Your task to perform on an android device: clear history in the chrome app Image 0: 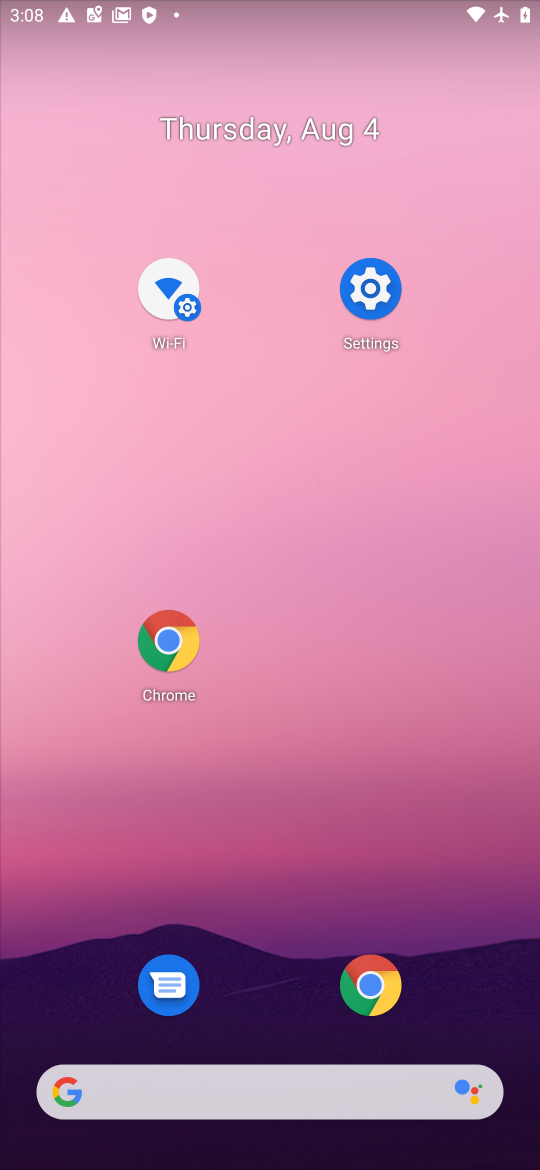
Step 0: drag from (350, 1148) to (228, 276)
Your task to perform on an android device: clear history in the chrome app Image 1: 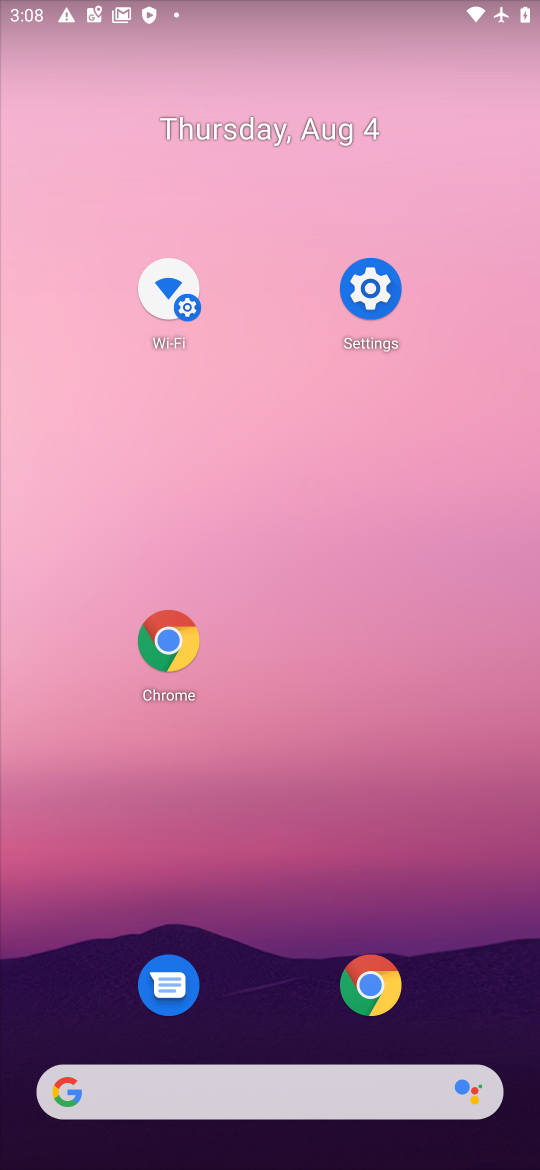
Step 1: click (336, 454)
Your task to perform on an android device: clear history in the chrome app Image 2: 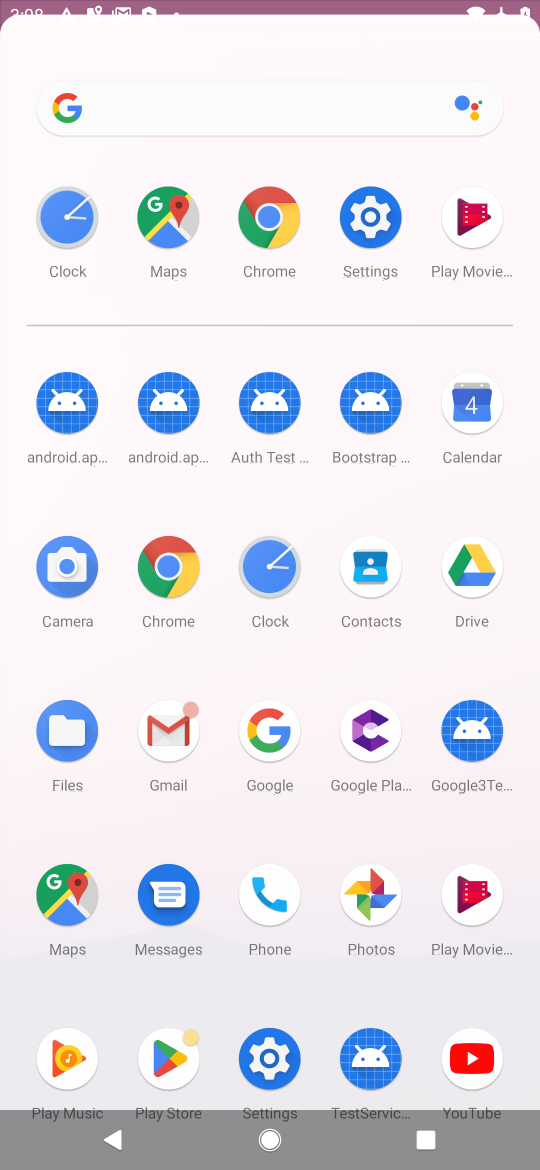
Step 2: drag from (176, 741) to (140, 189)
Your task to perform on an android device: clear history in the chrome app Image 3: 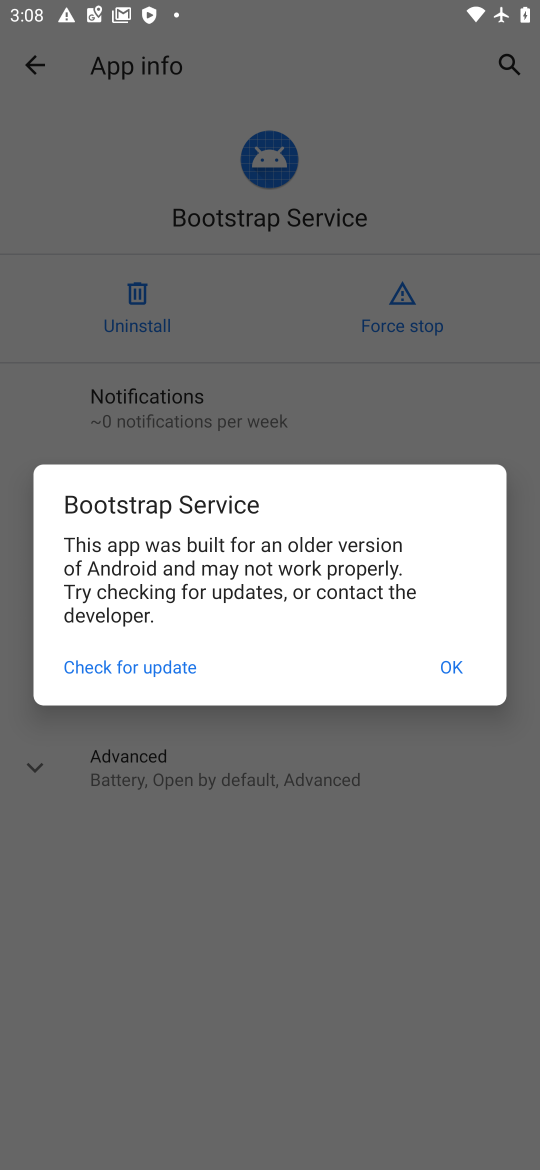
Step 3: click (458, 673)
Your task to perform on an android device: clear history in the chrome app Image 4: 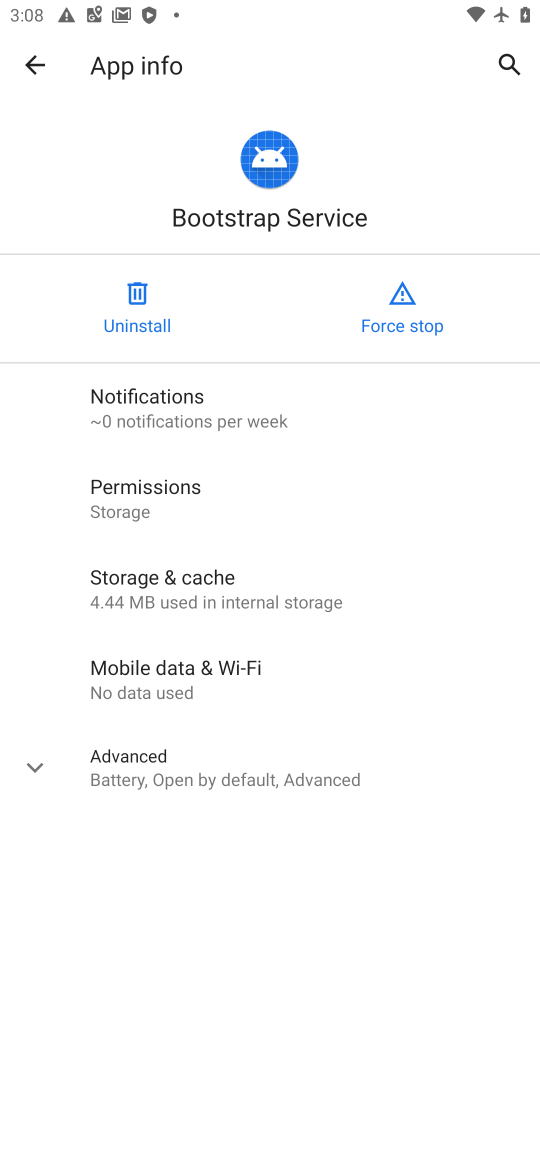
Step 4: press back button
Your task to perform on an android device: clear history in the chrome app Image 5: 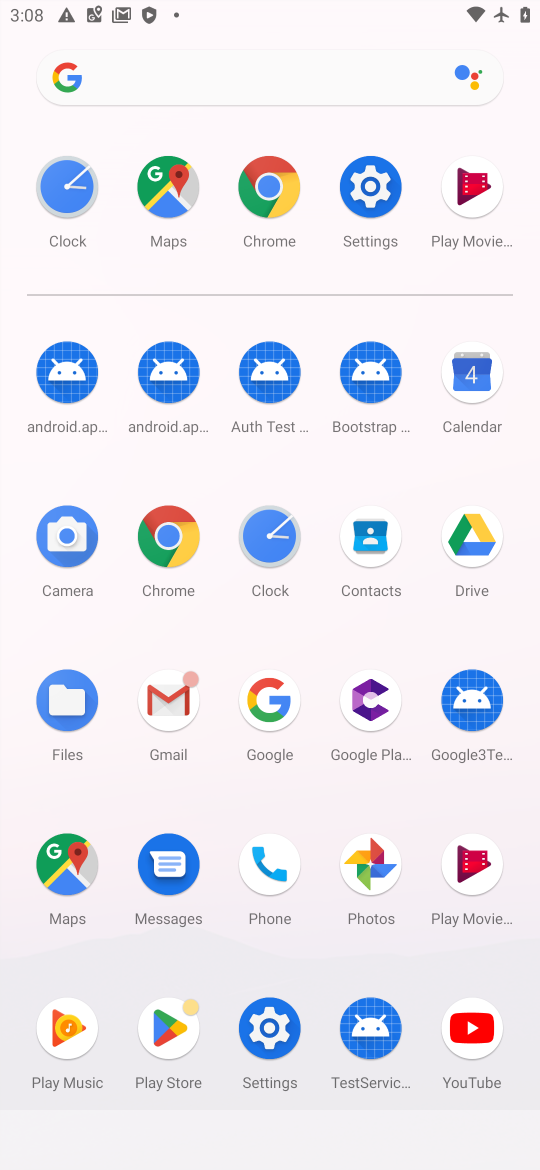
Step 5: click (25, 60)
Your task to perform on an android device: clear history in the chrome app Image 6: 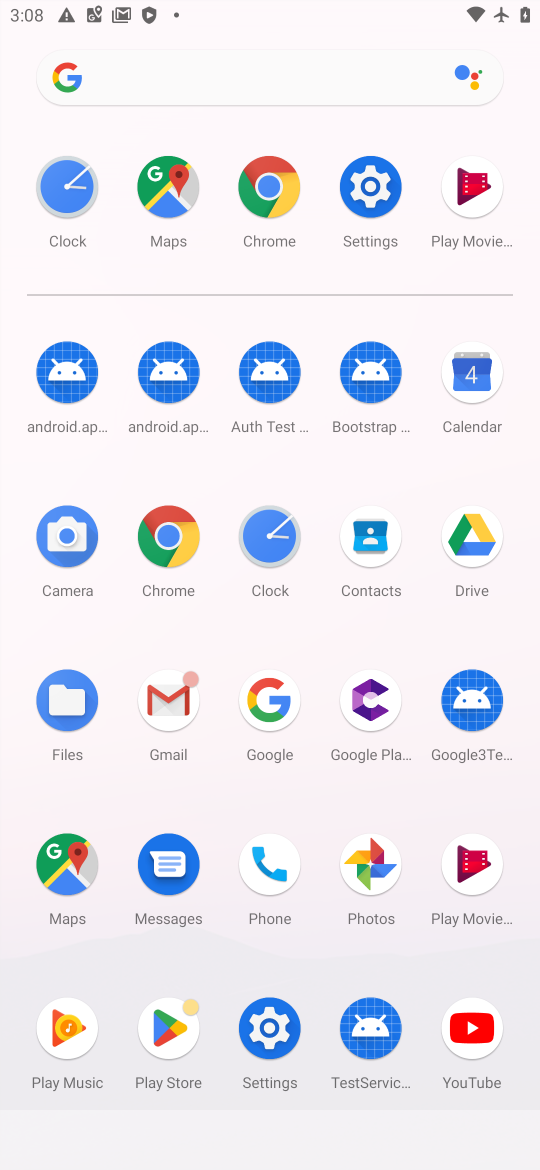
Step 6: click (261, 202)
Your task to perform on an android device: clear history in the chrome app Image 7: 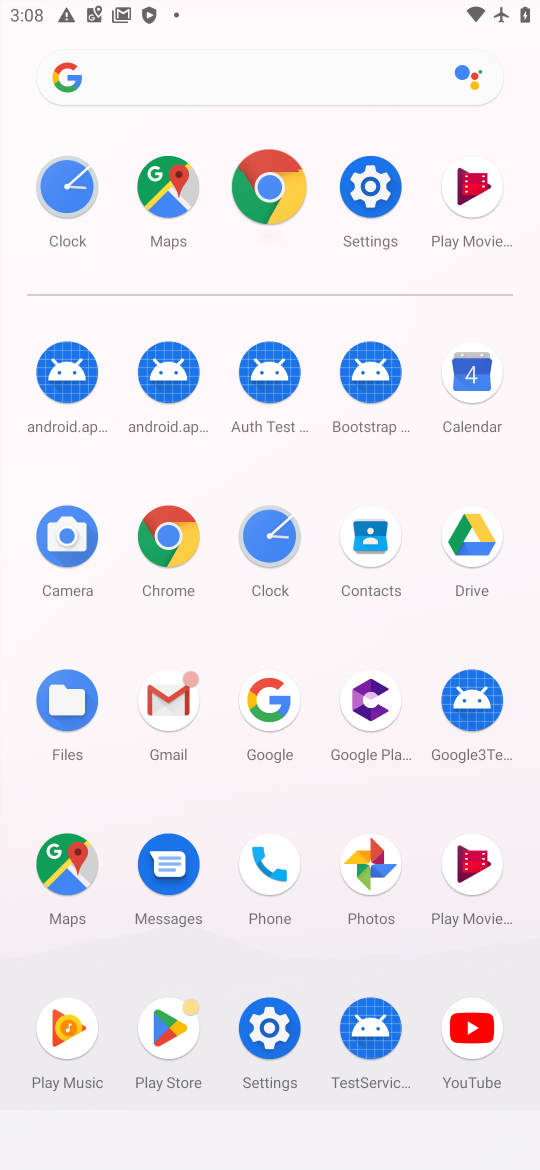
Step 7: click (261, 202)
Your task to perform on an android device: clear history in the chrome app Image 8: 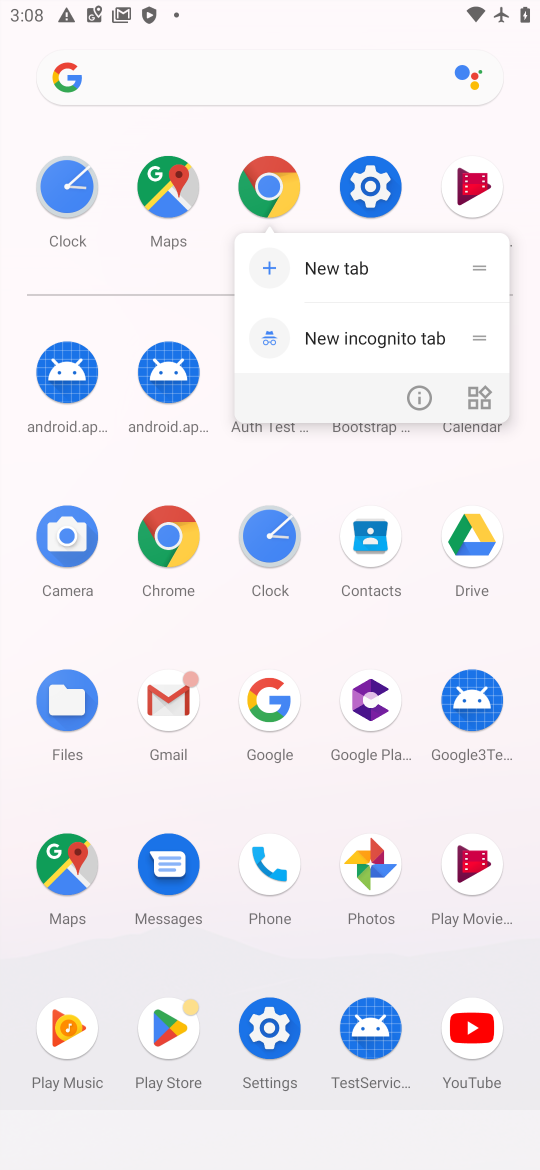
Step 8: click (252, 183)
Your task to perform on an android device: clear history in the chrome app Image 9: 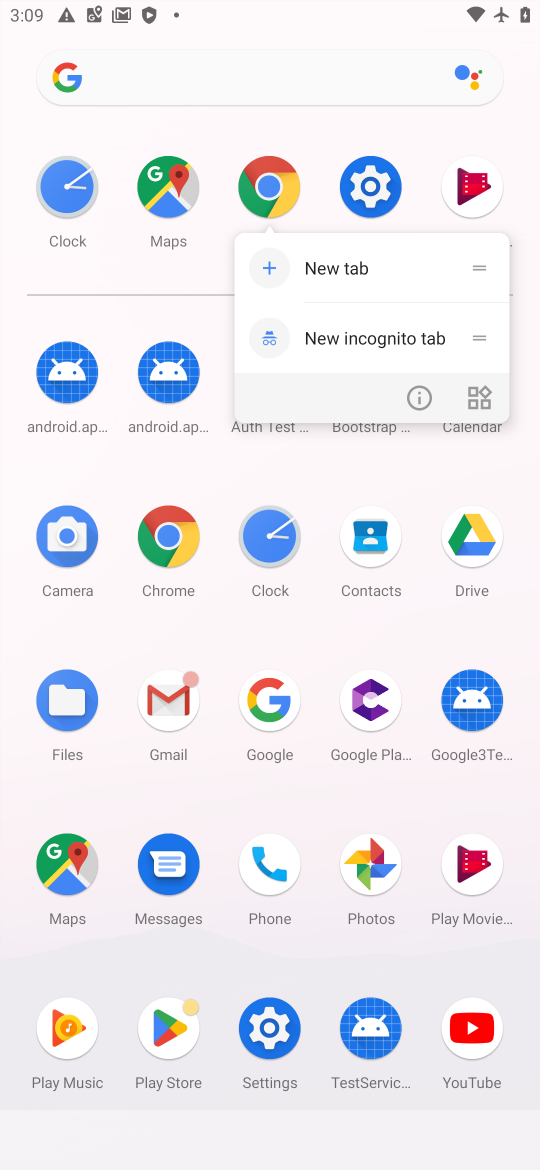
Step 9: click (313, 262)
Your task to perform on an android device: clear history in the chrome app Image 10: 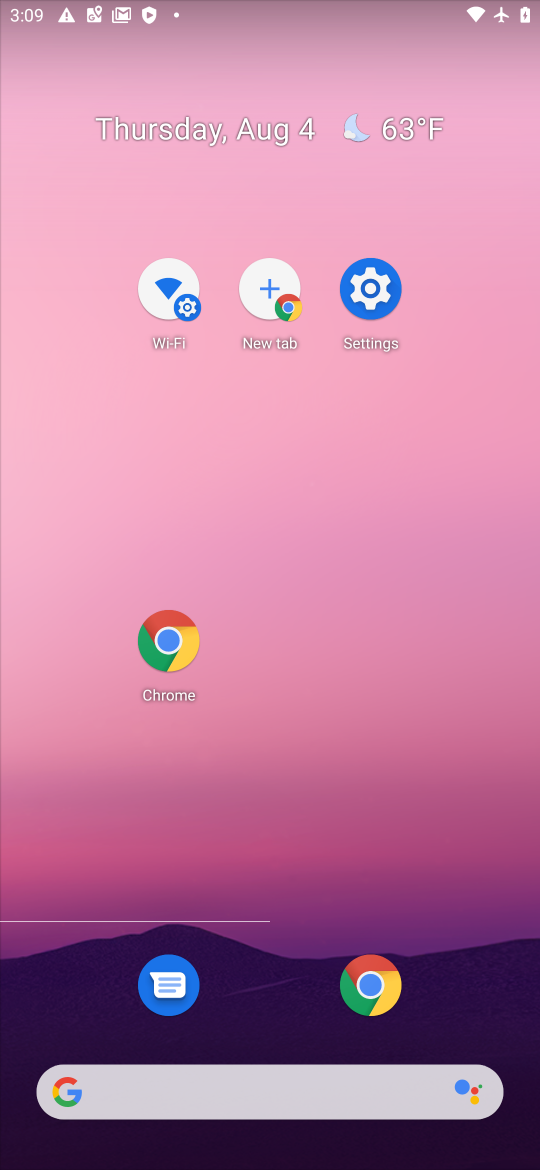
Step 10: drag from (301, 1061) to (145, 351)
Your task to perform on an android device: clear history in the chrome app Image 11: 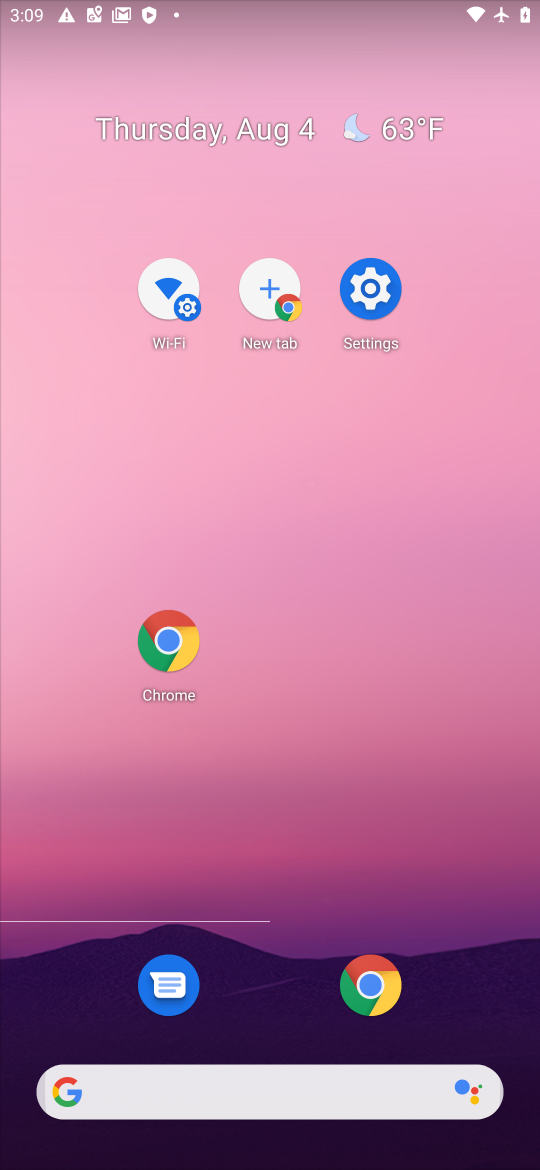
Step 11: drag from (286, 400) to (295, 151)
Your task to perform on an android device: clear history in the chrome app Image 12: 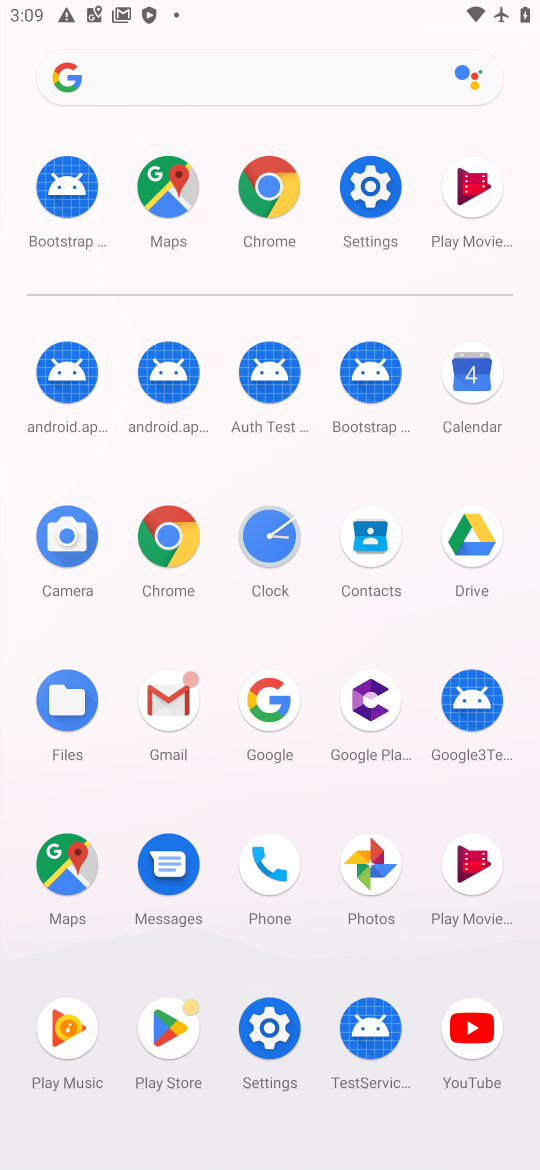
Step 12: click (263, 191)
Your task to perform on an android device: clear history in the chrome app Image 13: 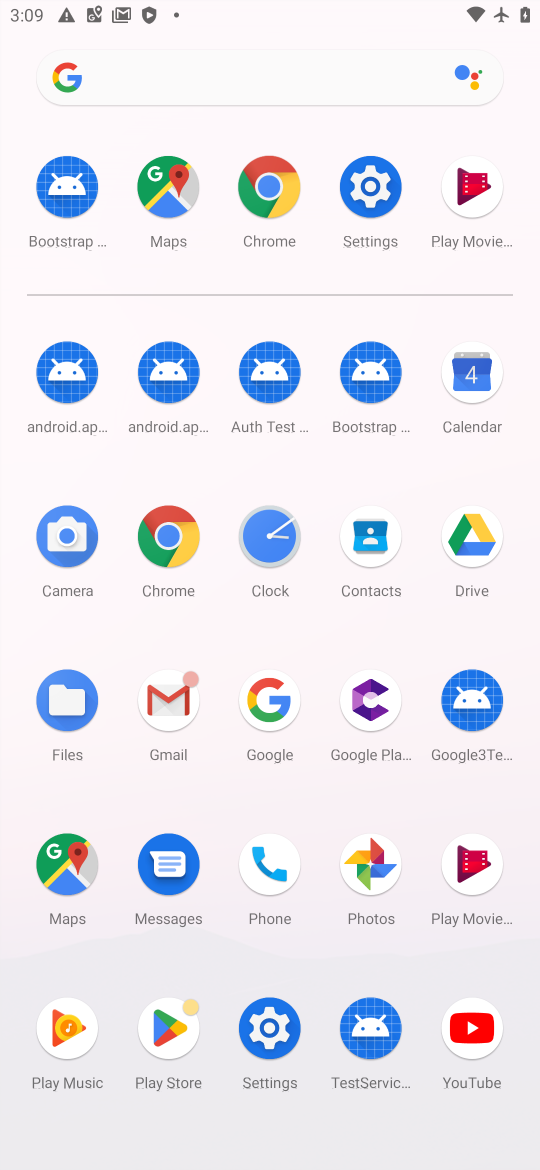
Step 13: click (263, 188)
Your task to perform on an android device: clear history in the chrome app Image 14: 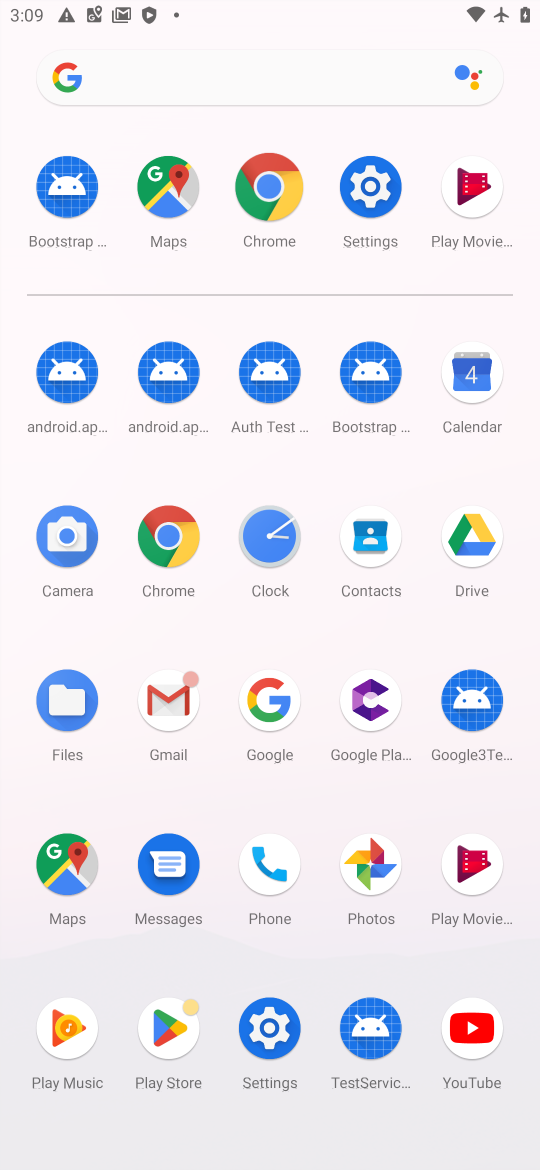
Step 14: click (263, 188)
Your task to perform on an android device: clear history in the chrome app Image 15: 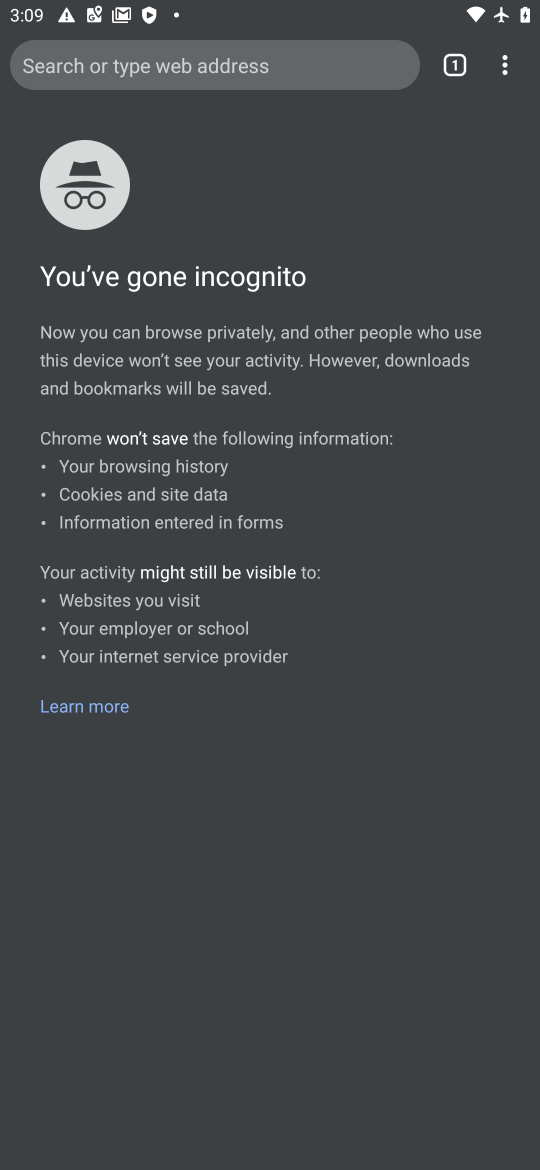
Step 15: drag from (502, 78) to (255, 294)
Your task to perform on an android device: clear history in the chrome app Image 16: 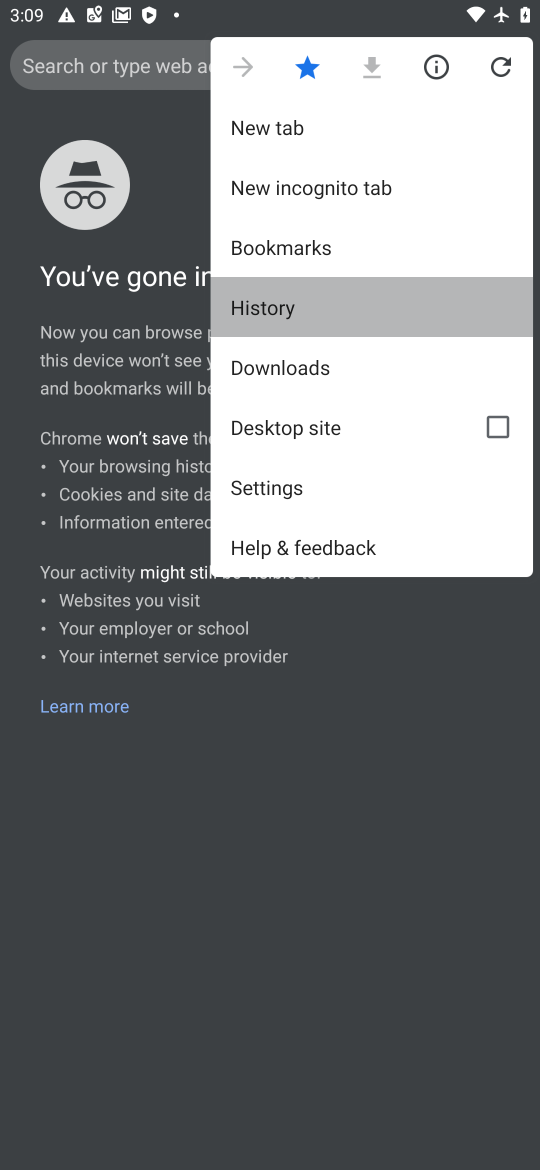
Step 16: click (255, 294)
Your task to perform on an android device: clear history in the chrome app Image 17: 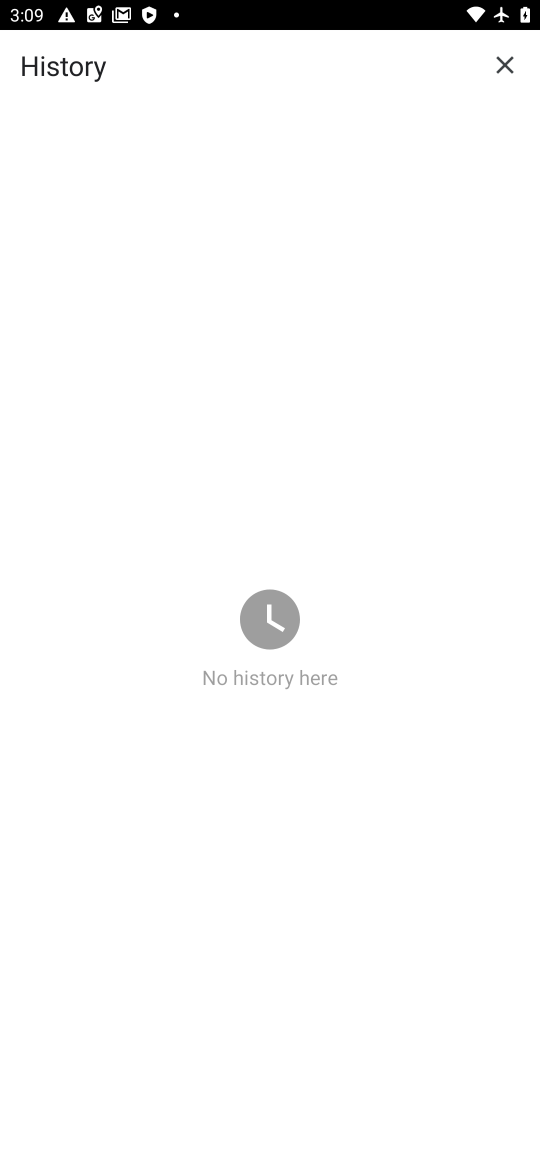
Step 17: task complete